Your task to perform on an android device: toggle pop-ups in chrome Image 0: 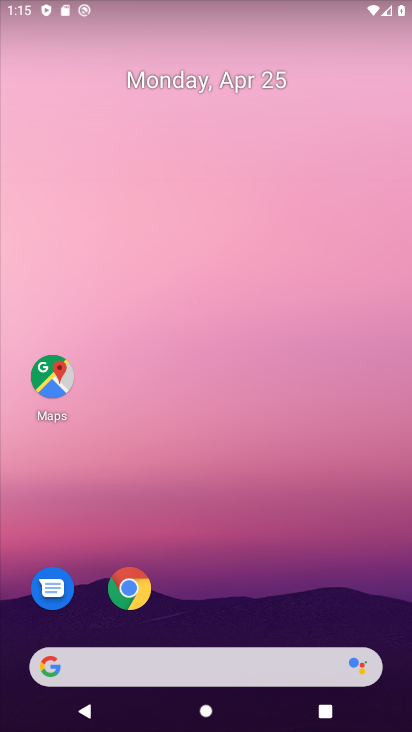
Step 0: click (150, 607)
Your task to perform on an android device: toggle pop-ups in chrome Image 1: 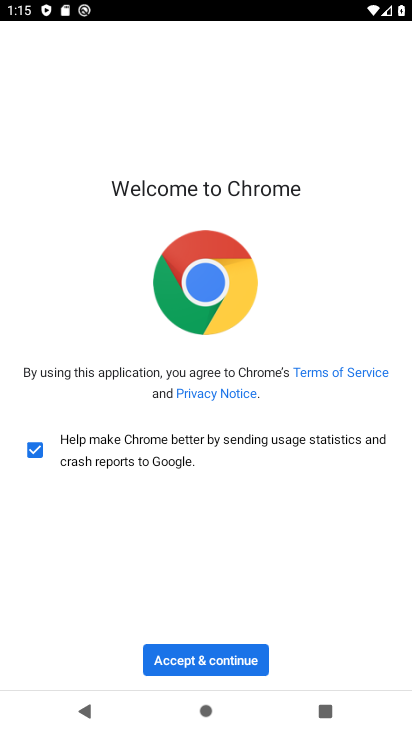
Step 1: click (218, 657)
Your task to perform on an android device: toggle pop-ups in chrome Image 2: 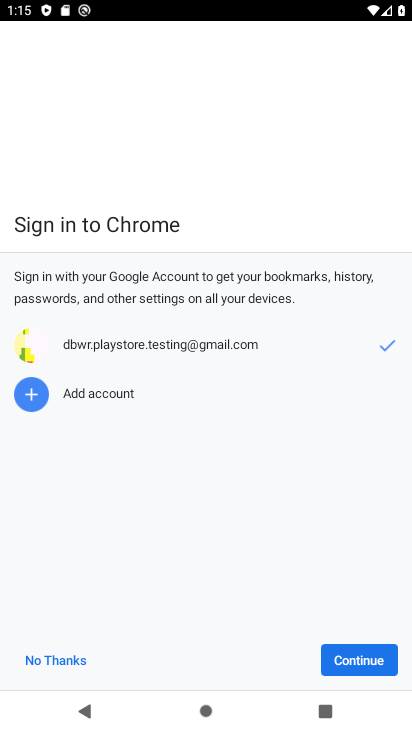
Step 2: click (363, 658)
Your task to perform on an android device: toggle pop-ups in chrome Image 3: 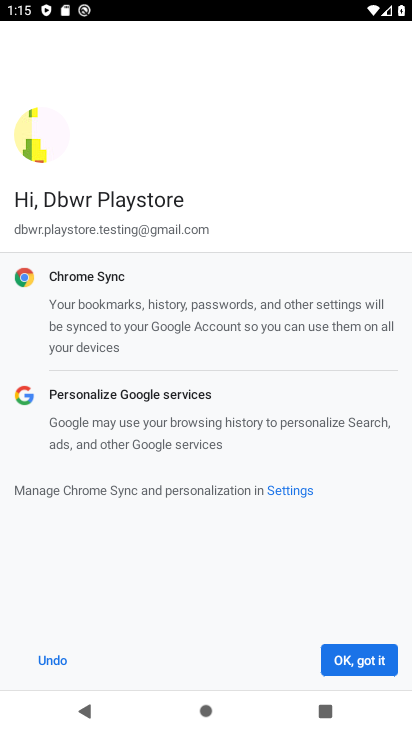
Step 3: click (362, 658)
Your task to perform on an android device: toggle pop-ups in chrome Image 4: 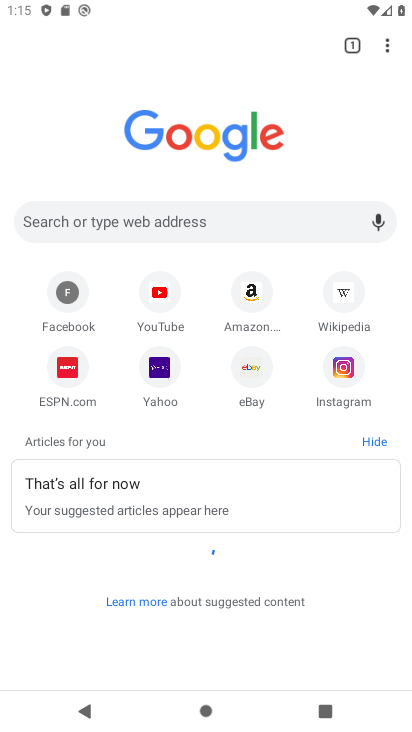
Step 4: click (387, 45)
Your task to perform on an android device: toggle pop-ups in chrome Image 5: 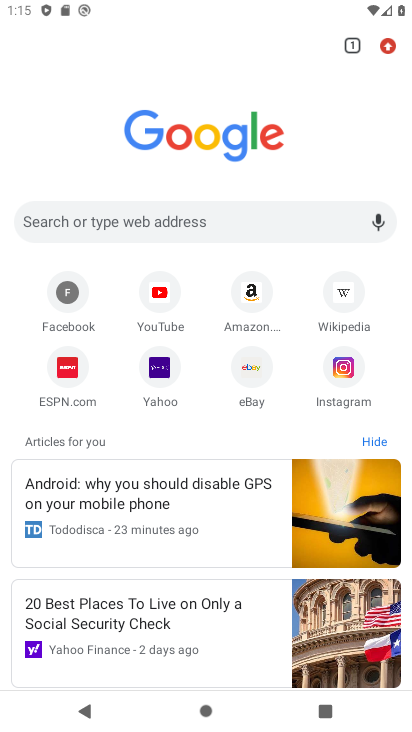
Step 5: click (383, 50)
Your task to perform on an android device: toggle pop-ups in chrome Image 6: 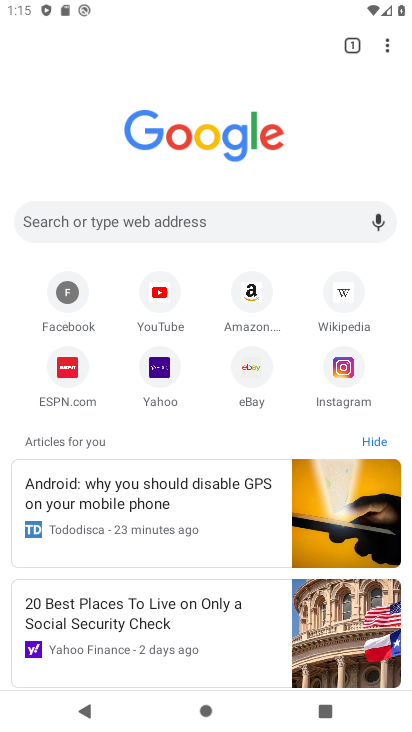
Step 6: click (385, 40)
Your task to perform on an android device: toggle pop-ups in chrome Image 7: 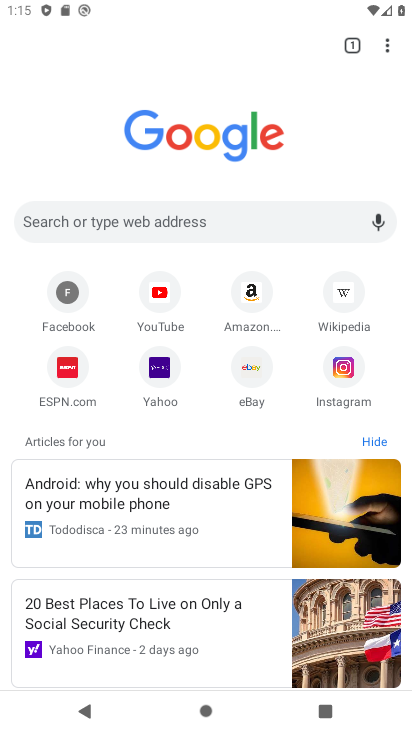
Step 7: click (384, 41)
Your task to perform on an android device: toggle pop-ups in chrome Image 8: 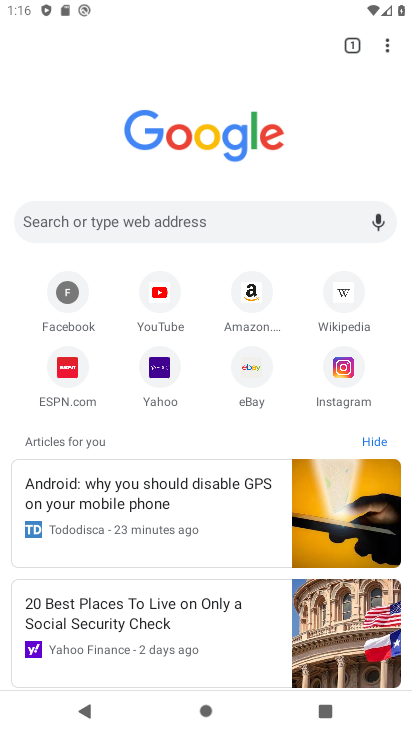
Step 8: click (382, 46)
Your task to perform on an android device: toggle pop-ups in chrome Image 9: 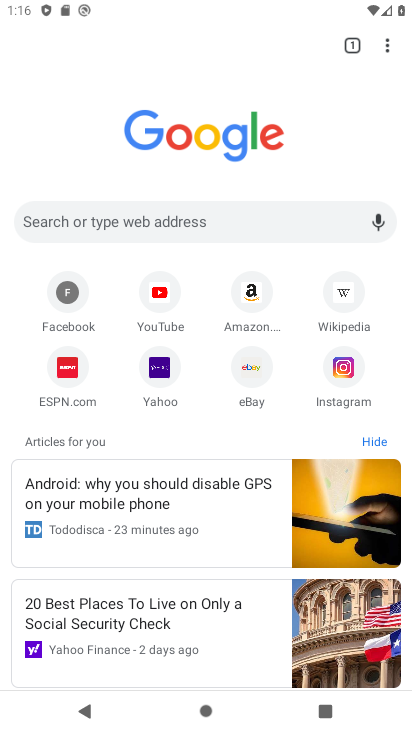
Step 9: click (393, 49)
Your task to perform on an android device: toggle pop-ups in chrome Image 10: 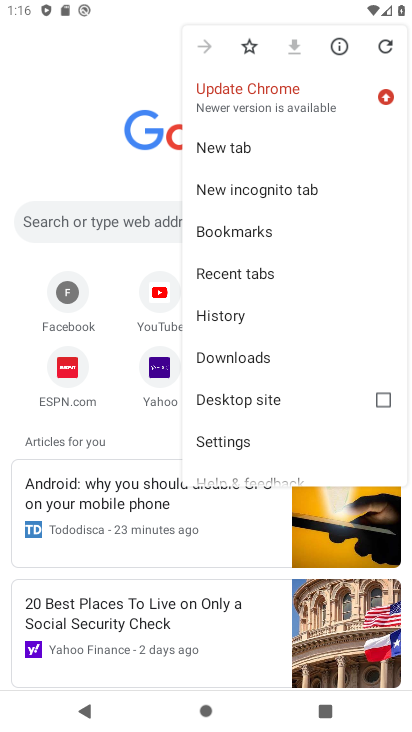
Step 10: click (254, 441)
Your task to perform on an android device: toggle pop-ups in chrome Image 11: 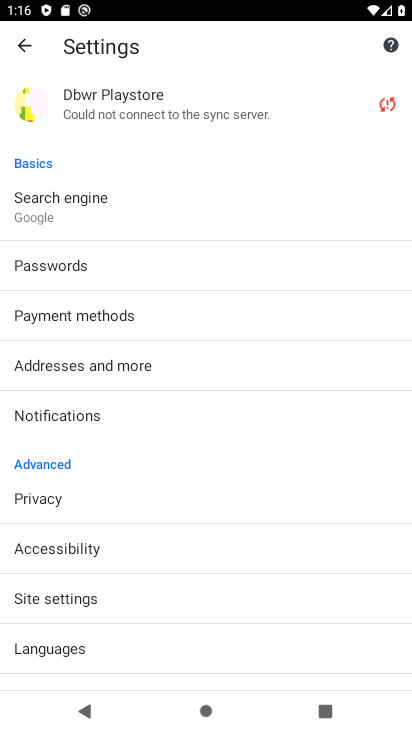
Step 11: click (94, 609)
Your task to perform on an android device: toggle pop-ups in chrome Image 12: 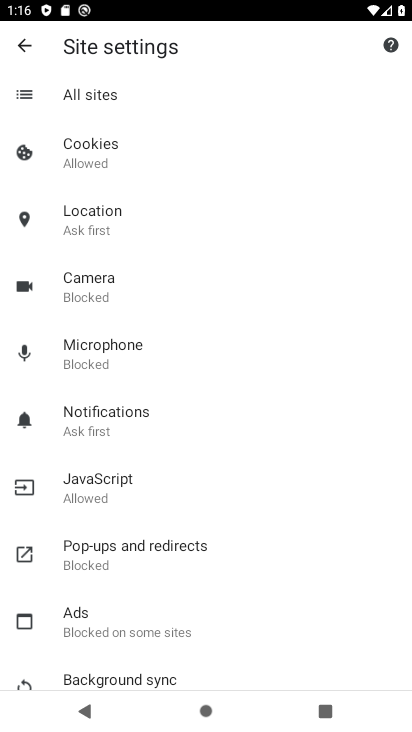
Step 12: click (167, 549)
Your task to perform on an android device: toggle pop-ups in chrome Image 13: 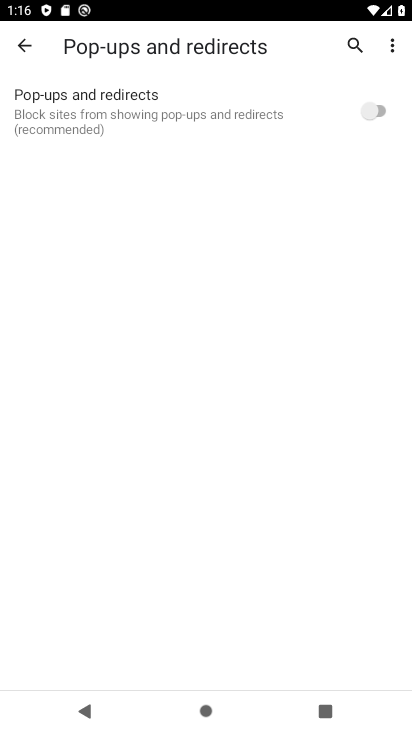
Step 13: click (370, 112)
Your task to perform on an android device: toggle pop-ups in chrome Image 14: 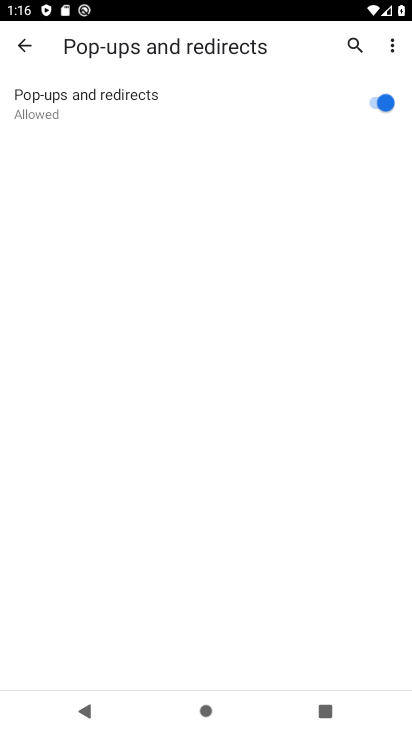
Step 14: task complete